Your task to perform on an android device: Go to Google maps Image 0: 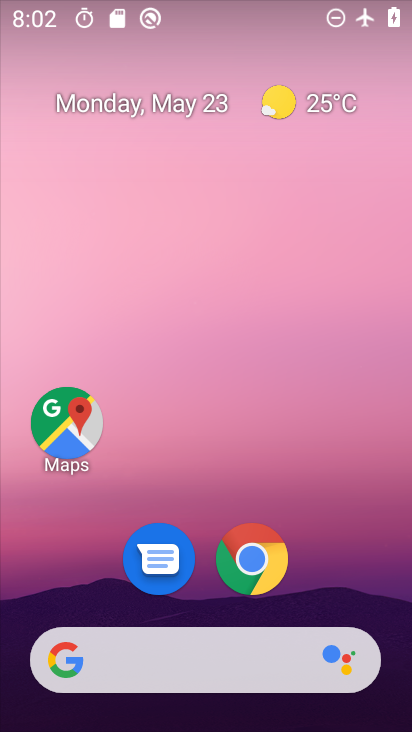
Step 0: drag from (370, 613) to (274, 20)
Your task to perform on an android device: Go to Google maps Image 1: 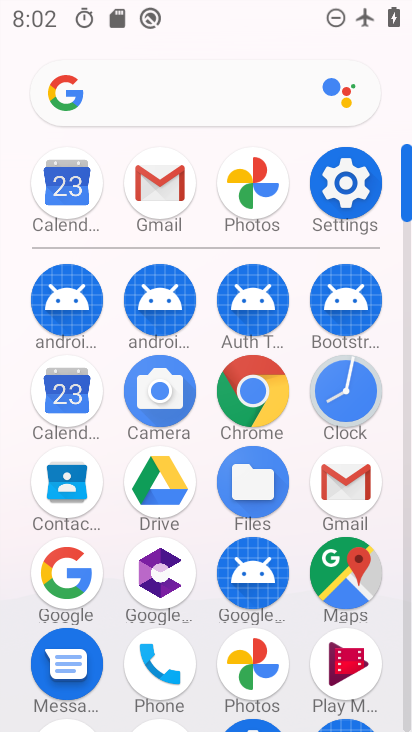
Step 1: click (329, 563)
Your task to perform on an android device: Go to Google maps Image 2: 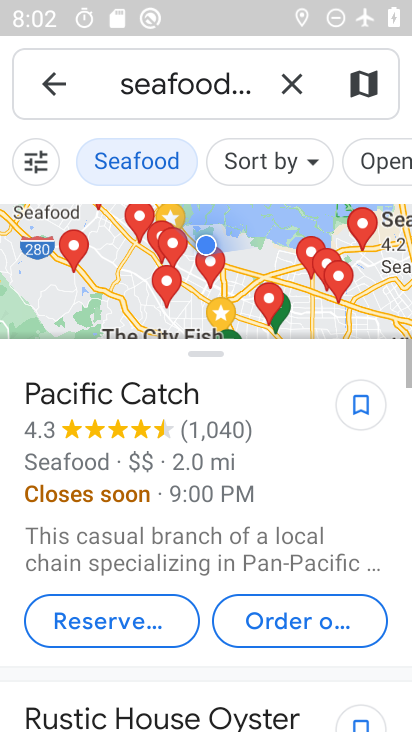
Step 2: click (286, 85)
Your task to perform on an android device: Go to Google maps Image 3: 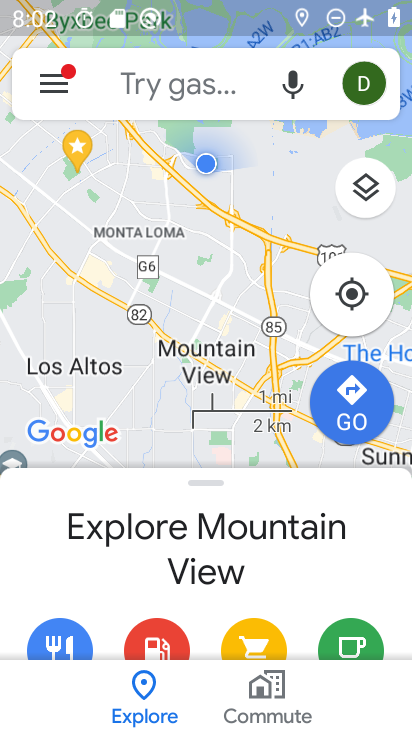
Step 3: task complete